Your task to perform on an android device: Open location settings Image 0: 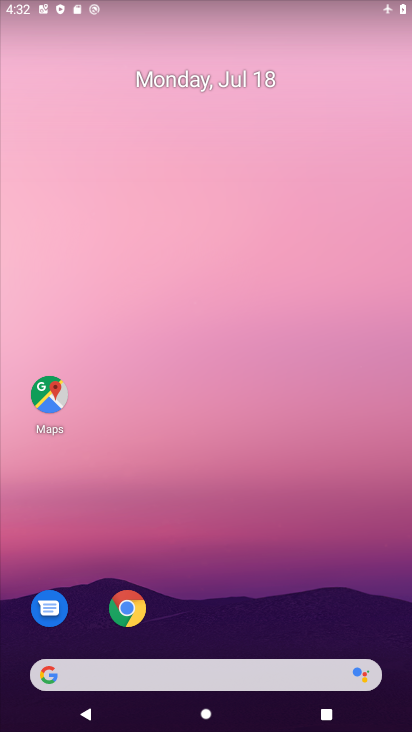
Step 0: drag from (225, 571) to (150, 93)
Your task to perform on an android device: Open location settings Image 1: 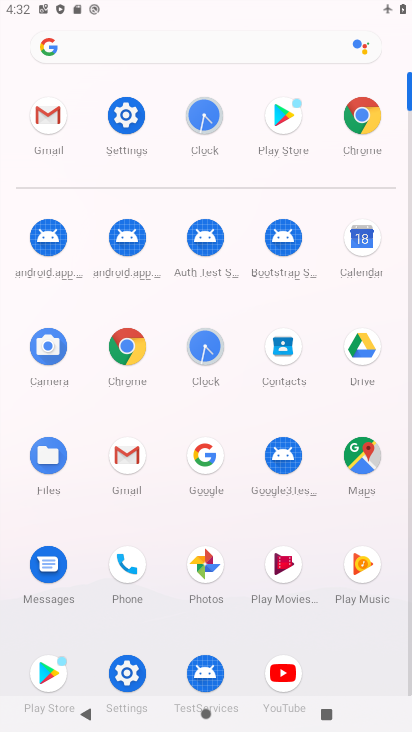
Step 1: click (122, 114)
Your task to perform on an android device: Open location settings Image 2: 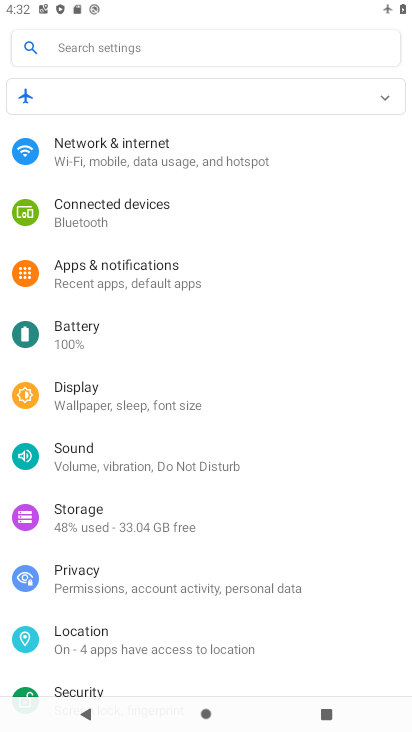
Step 2: click (131, 646)
Your task to perform on an android device: Open location settings Image 3: 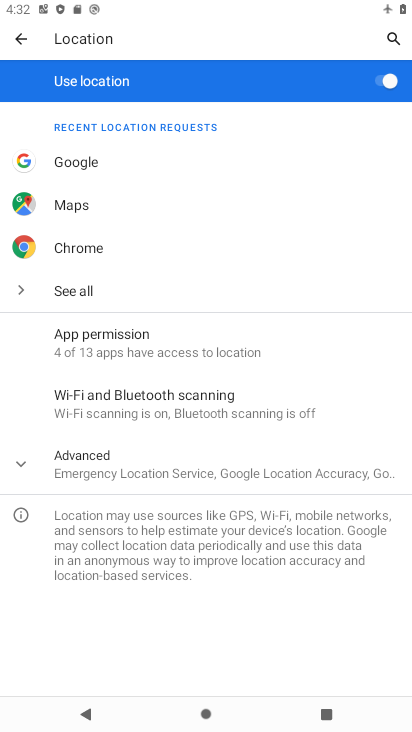
Step 3: task complete